Your task to perform on an android device: Open Maps and search for coffee Image 0: 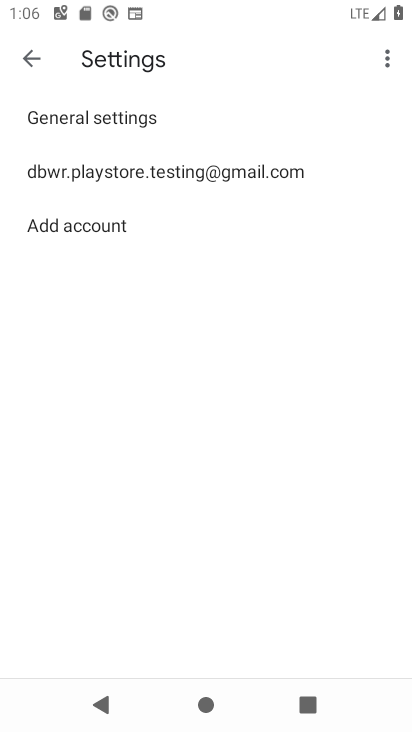
Step 0: press home button
Your task to perform on an android device: Open Maps and search for coffee Image 1: 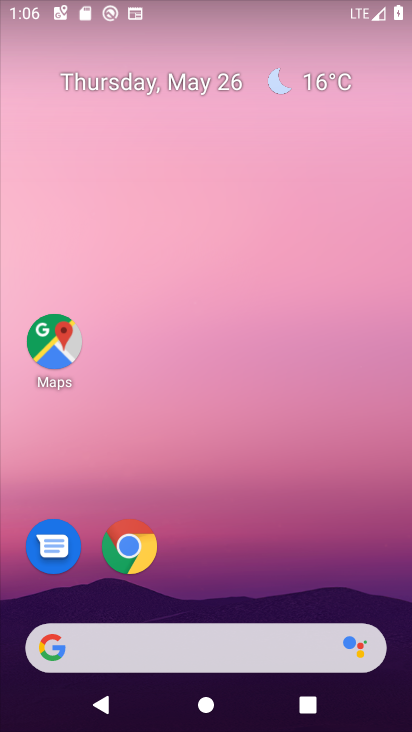
Step 1: click (51, 342)
Your task to perform on an android device: Open Maps and search for coffee Image 2: 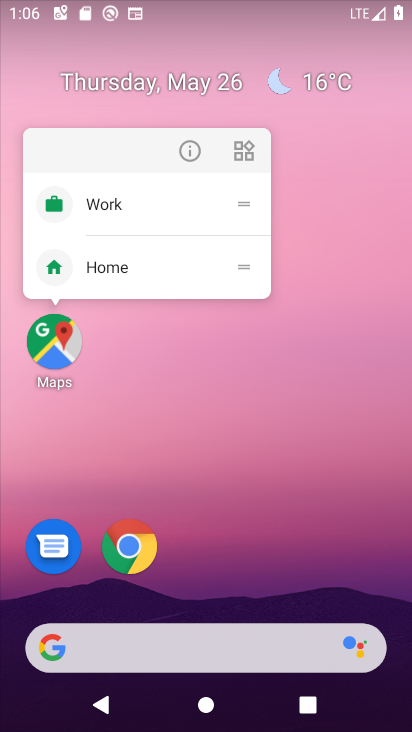
Step 2: click (49, 346)
Your task to perform on an android device: Open Maps and search for coffee Image 3: 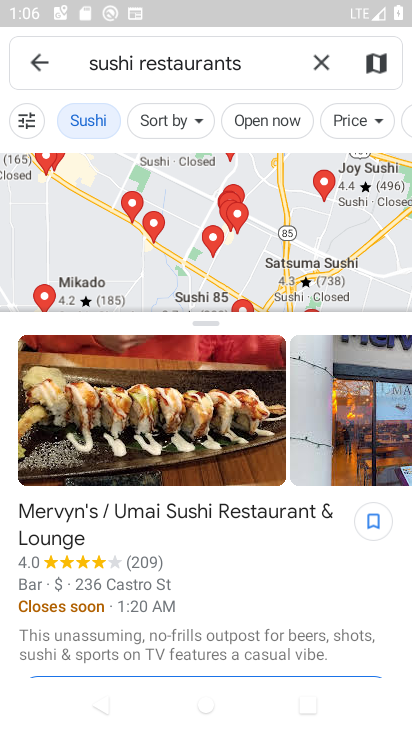
Step 3: click (314, 61)
Your task to perform on an android device: Open Maps and search for coffee Image 4: 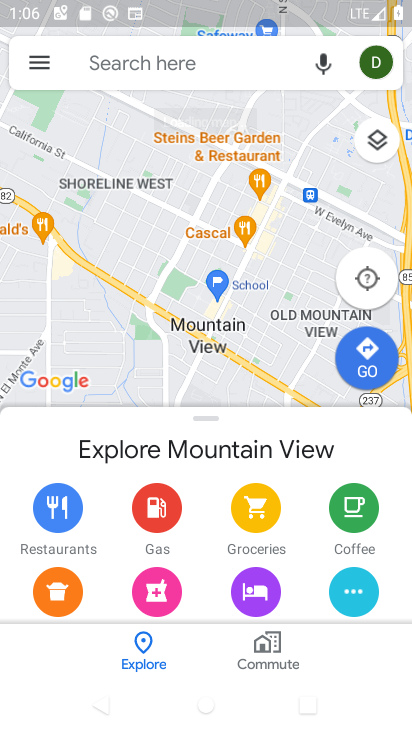
Step 4: type "coffee"
Your task to perform on an android device: Open Maps and search for coffee Image 5: 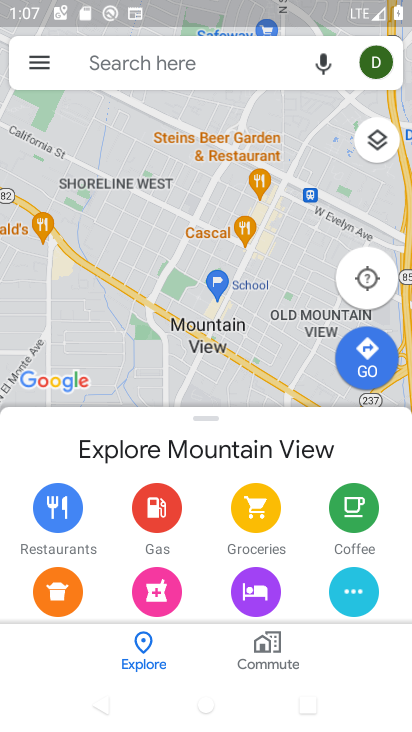
Step 5: task complete